Your task to perform on an android device: Go to network settings Image 0: 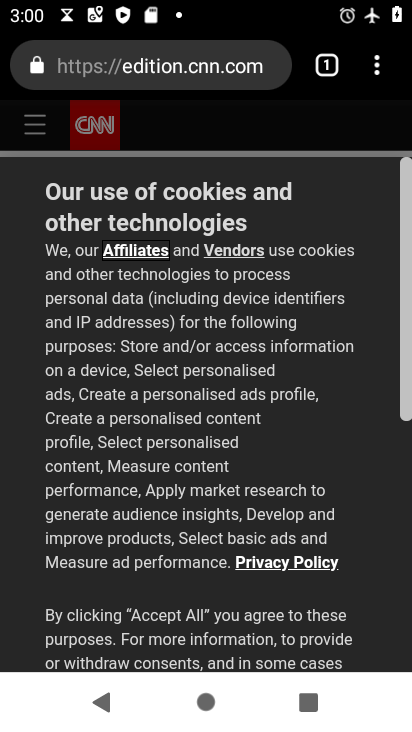
Step 0: press back button
Your task to perform on an android device: Go to network settings Image 1: 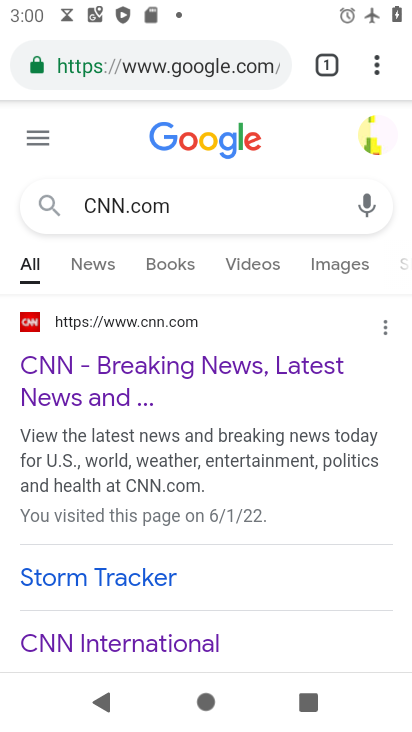
Step 1: press back button
Your task to perform on an android device: Go to network settings Image 2: 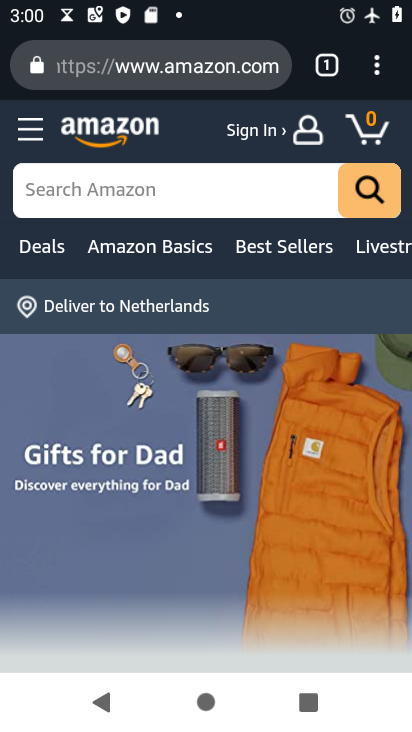
Step 2: press back button
Your task to perform on an android device: Go to network settings Image 3: 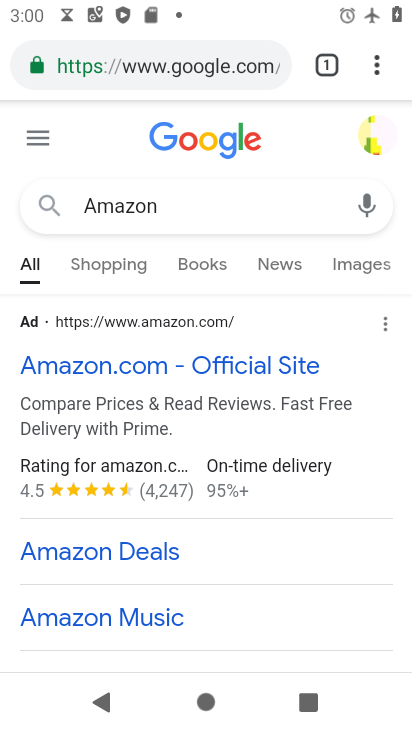
Step 3: press back button
Your task to perform on an android device: Go to network settings Image 4: 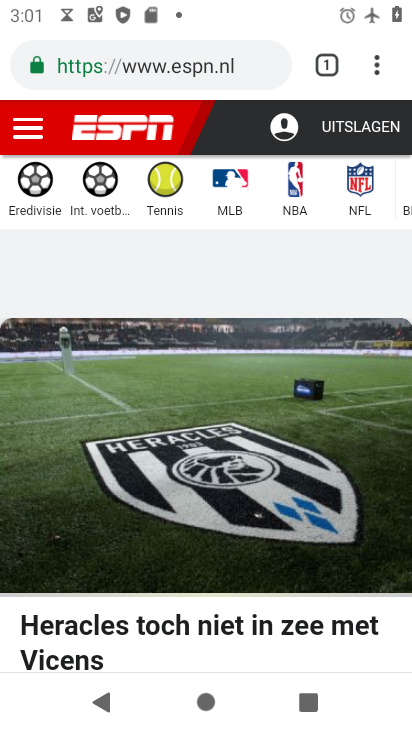
Step 4: press back button
Your task to perform on an android device: Go to network settings Image 5: 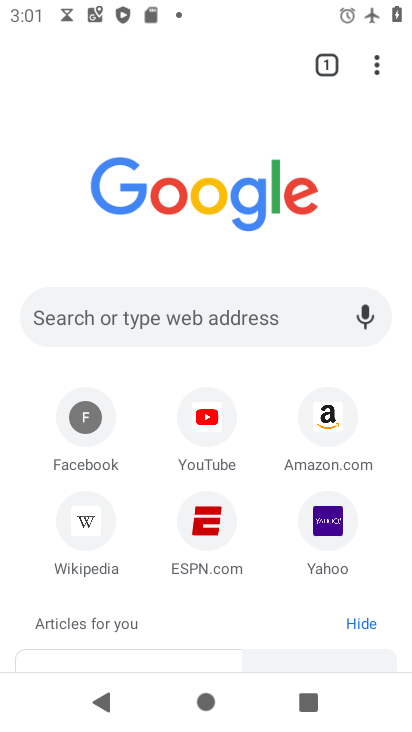
Step 5: press back button
Your task to perform on an android device: Go to network settings Image 6: 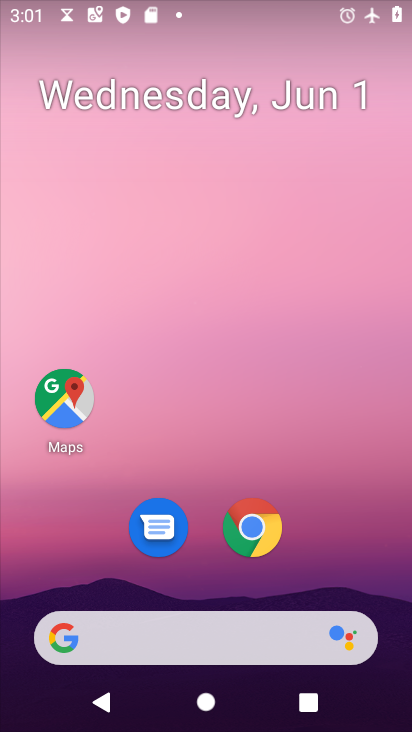
Step 6: drag from (329, 581) to (311, 63)
Your task to perform on an android device: Go to network settings Image 7: 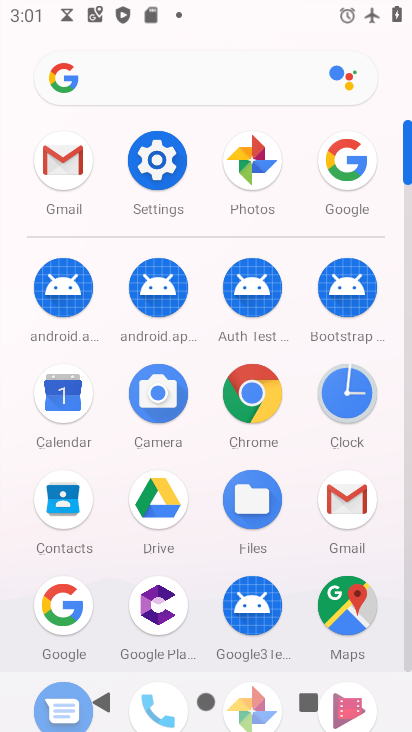
Step 7: click (156, 161)
Your task to perform on an android device: Go to network settings Image 8: 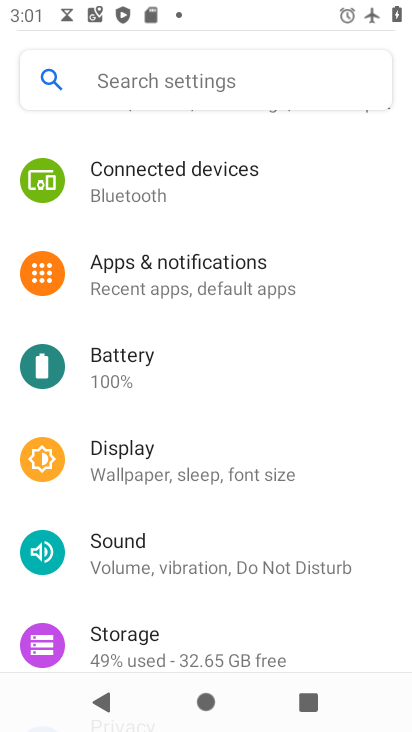
Step 8: drag from (200, 195) to (188, 266)
Your task to perform on an android device: Go to network settings Image 9: 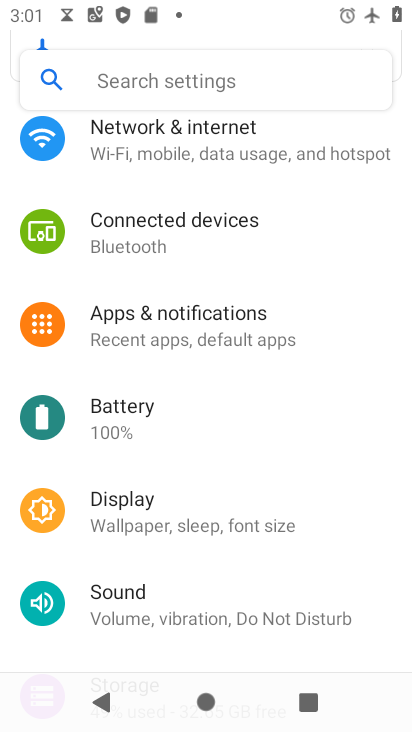
Step 9: click (219, 138)
Your task to perform on an android device: Go to network settings Image 10: 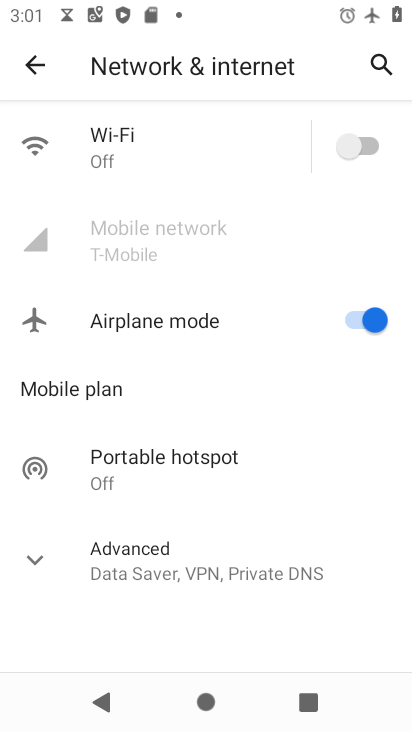
Step 10: task complete